Your task to perform on an android device: delete browsing data in the chrome app Image 0: 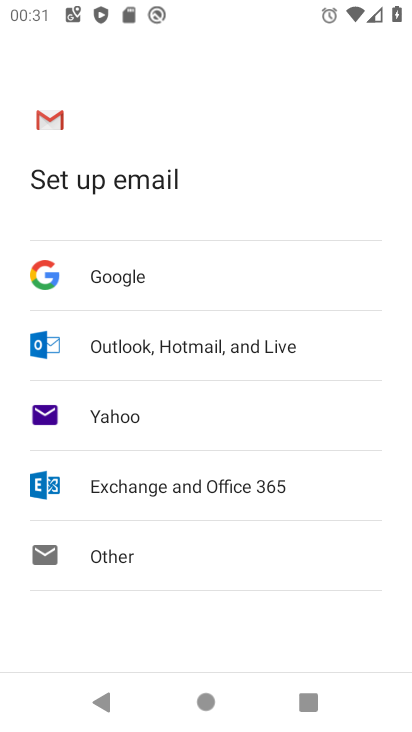
Step 0: press home button
Your task to perform on an android device: delete browsing data in the chrome app Image 1: 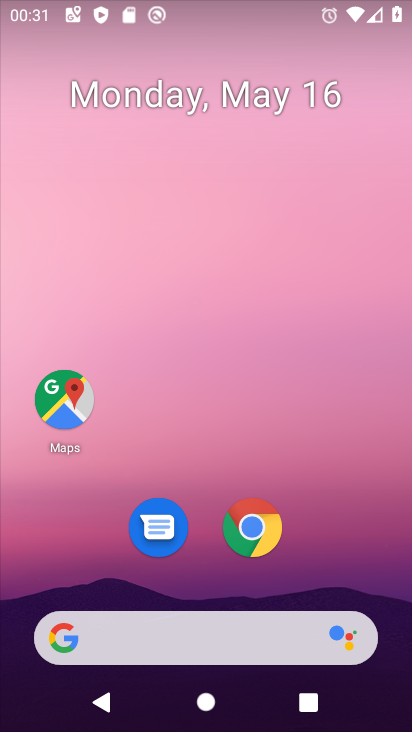
Step 1: click (284, 545)
Your task to perform on an android device: delete browsing data in the chrome app Image 2: 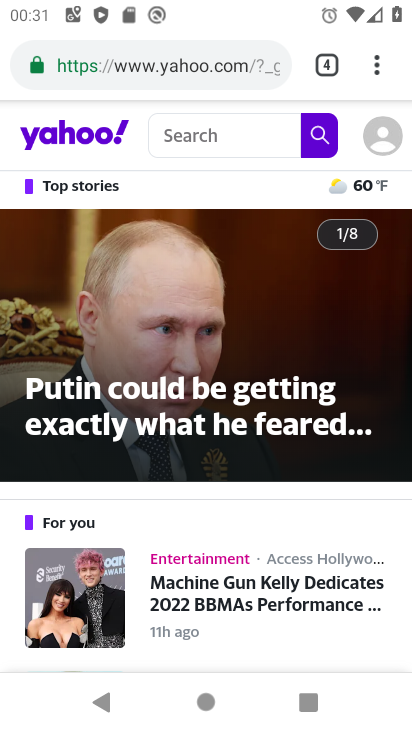
Step 2: click (237, 80)
Your task to perform on an android device: delete browsing data in the chrome app Image 3: 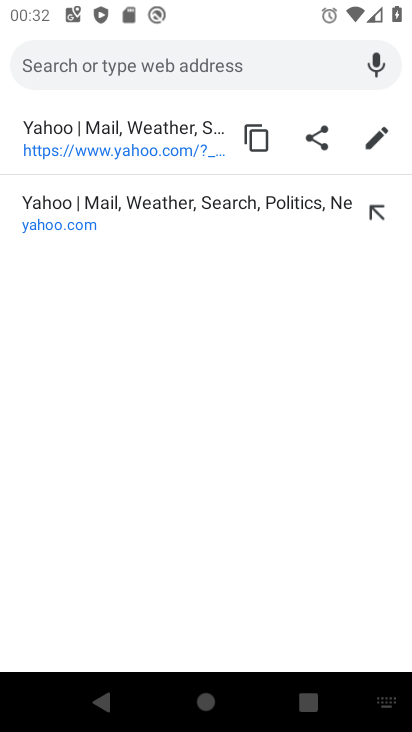
Step 3: press back button
Your task to perform on an android device: delete browsing data in the chrome app Image 4: 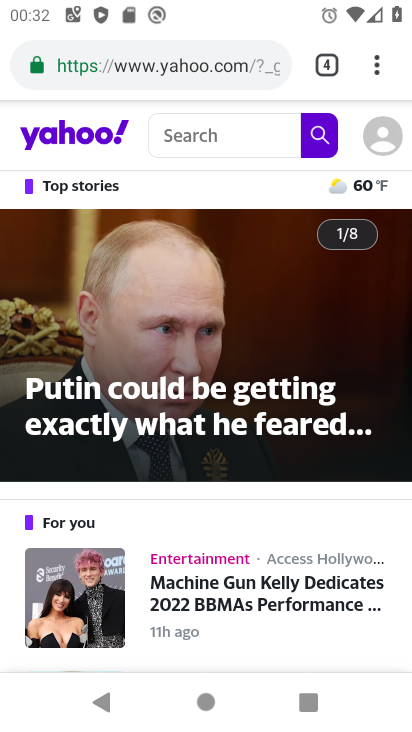
Step 4: click (370, 71)
Your task to perform on an android device: delete browsing data in the chrome app Image 5: 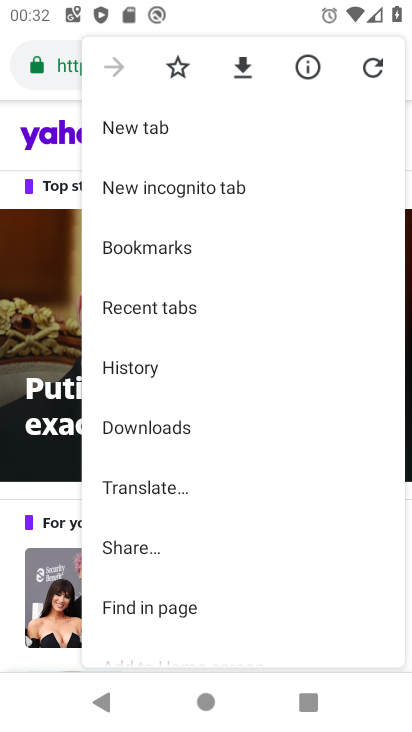
Step 5: click (203, 383)
Your task to perform on an android device: delete browsing data in the chrome app Image 6: 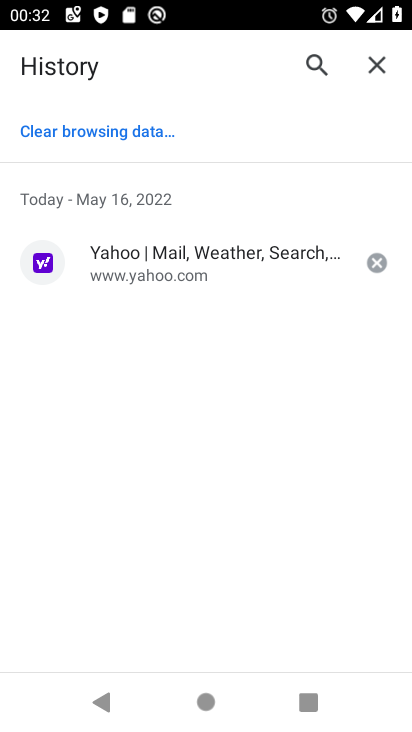
Step 6: click (121, 144)
Your task to perform on an android device: delete browsing data in the chrome app Image 7: 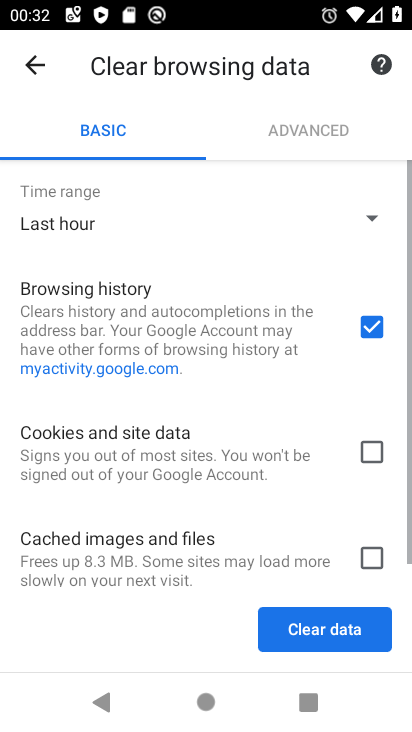
Step 7: click (326, 615)
Your task to perform on an android device: delete browsing data in the chrome app Image 8: 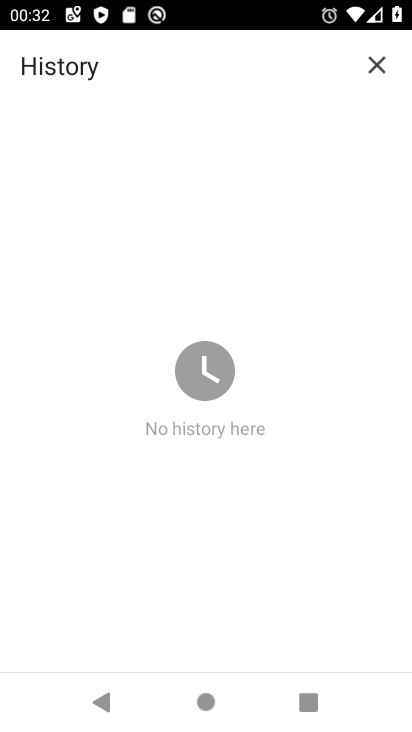
Step 8: task complete